Your task to perform on an android device: Go to Google Image 0: 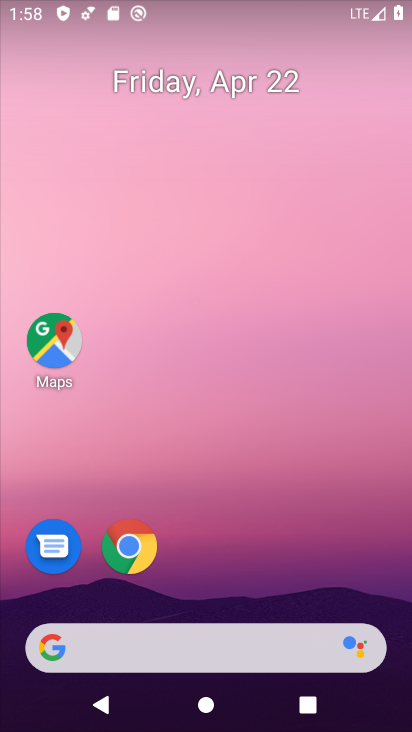
Step 0: drag from (251, 629) to (297, 227)
Your task to perform on an android device: Go to Google Image 1: 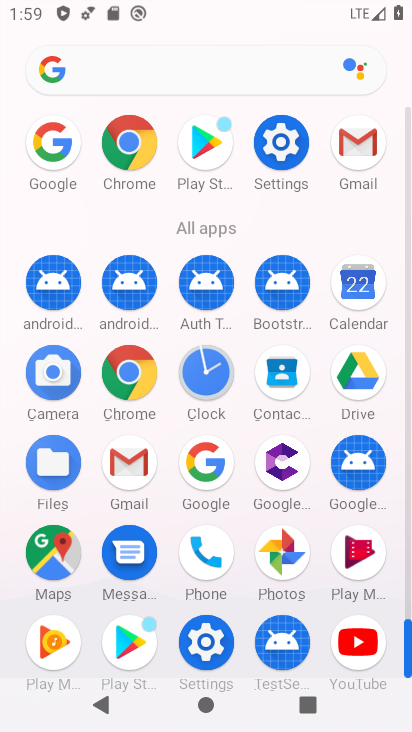
Step 1: click (213, 463)
Your task to perform on an android device: Go to Google Image 2: 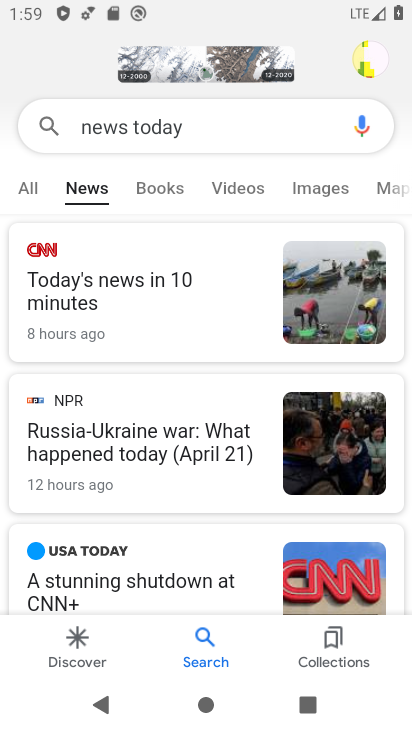
Step 2: task complete